Your task to perform on an android device: check storage Image 0: 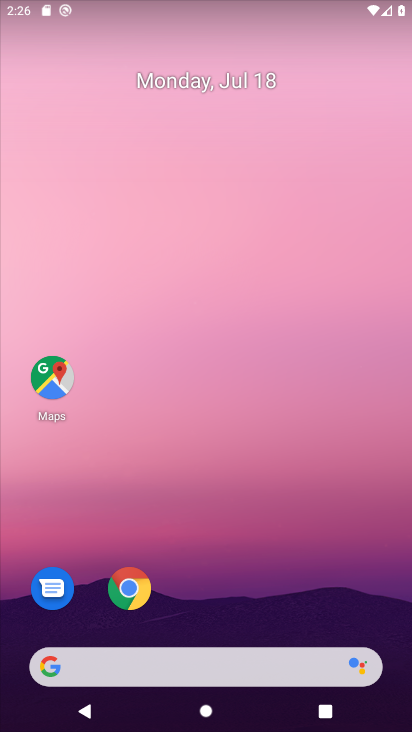
Step 0: drag from (258, 583) to (258, 311)
Your task to perform on an android device: check storage Image 1: 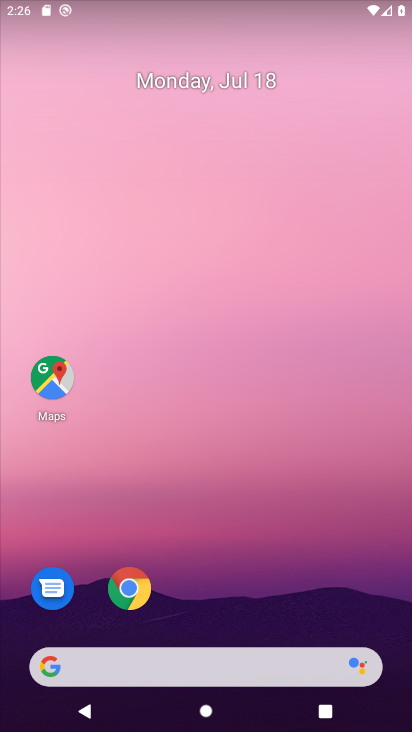
Step 1: drag from (268, 573) to (183, 1)
Your task to perform on an android device: check storage Image 2: 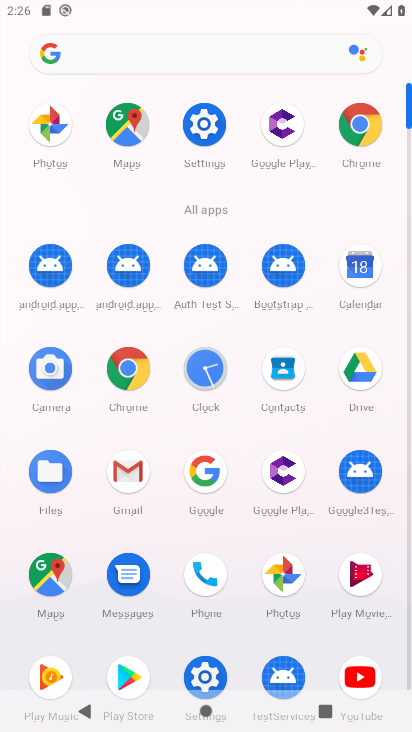
Step 2: click (204, 130)
Your task to perform on an android device: check storage Image 3: 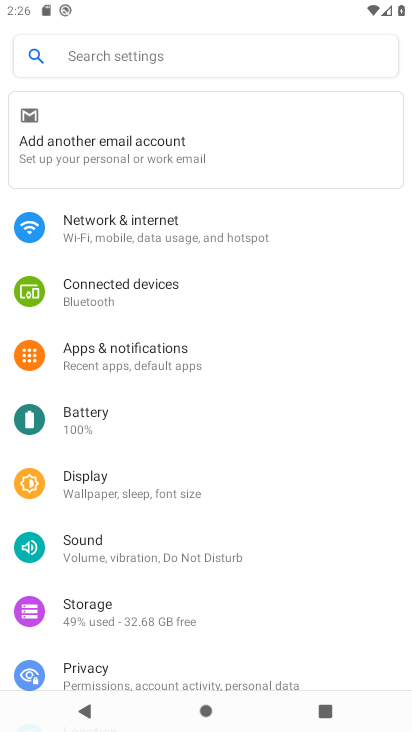
Step 3: click (83, 602)
Your task to perform on an android device: check storage Image 4: 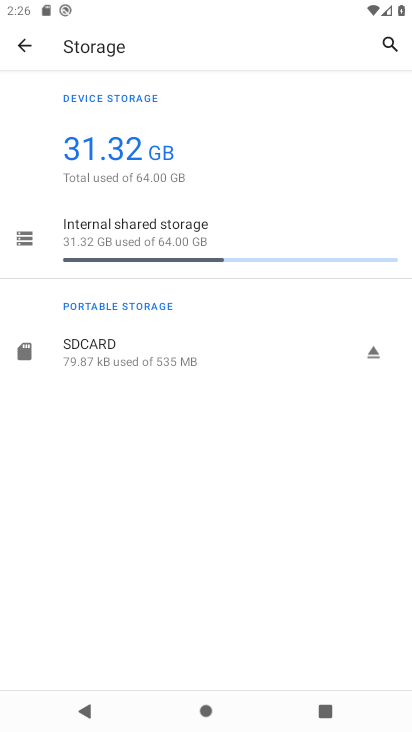
Step 4: task complete